Your task to perform on an android device: move a message to another label in the gmail app Image 0: 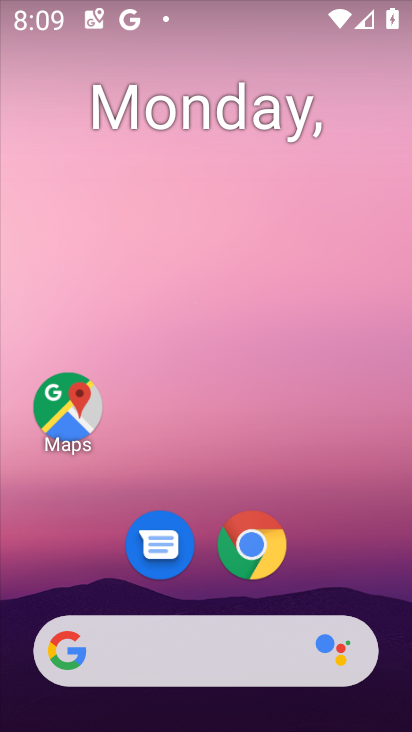
Step 0: drag from (166, 646) to (350, 172)
Your task to perform on an android device: move a message to another label in the gmail app Image 1: 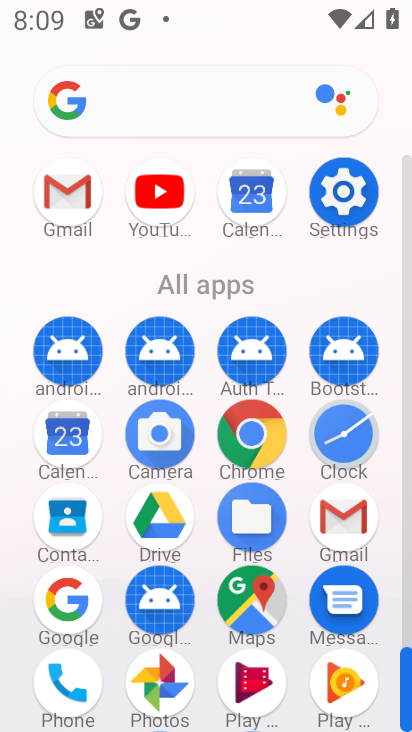
Step 1: click (68, 209)
Your task to perform on an android device: move a message to another label in the gmail app Image 2: 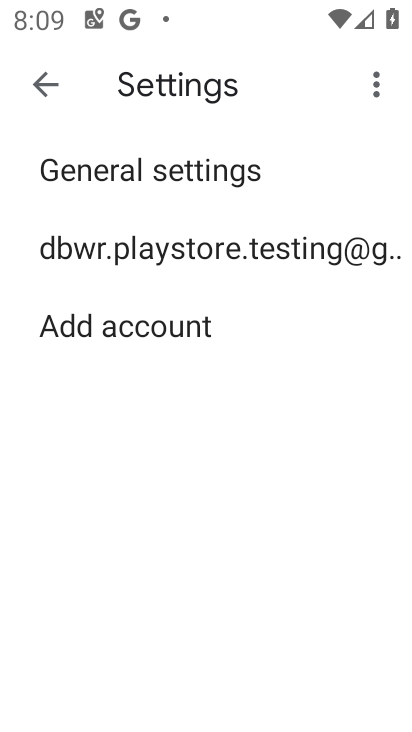
Step 2: click (54, 85)
Your task to perform on an android device: move a message to another label in the gmail app Image 3: 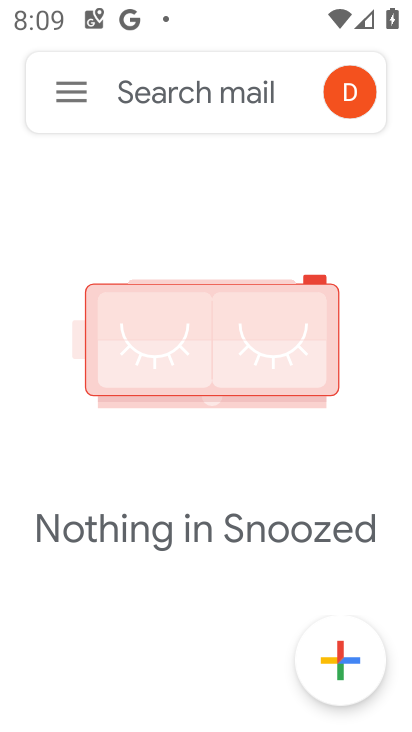
Step 3: click (79, 97)
Your task to perform on an android device: move a message to another label in the gmail app Image 4: 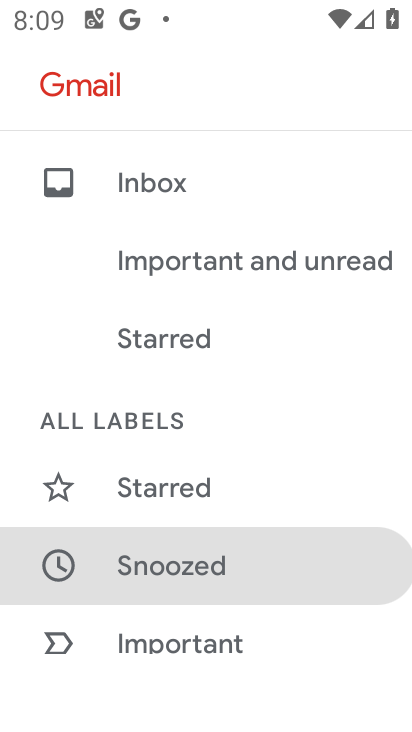
Step 4: drag from (299, 658) to (384, 139)
Your task to perform on an android device: move a message to another label in the gmail app Image 5: 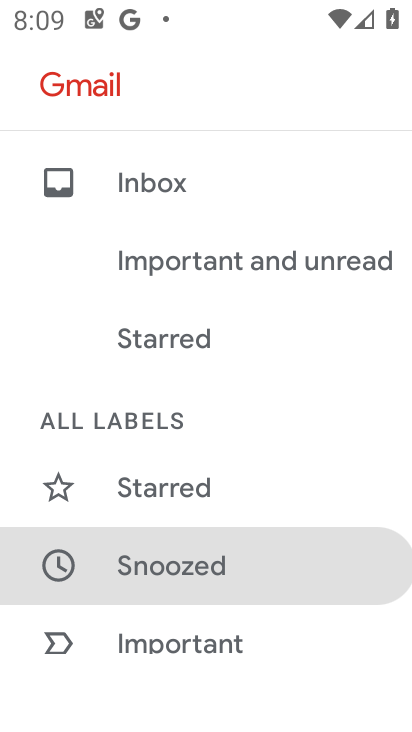
Step 5: drag from (257, 494) to (316, 139)
Your task to perform on an android device: move a message to another label in the gmail app Image 6: 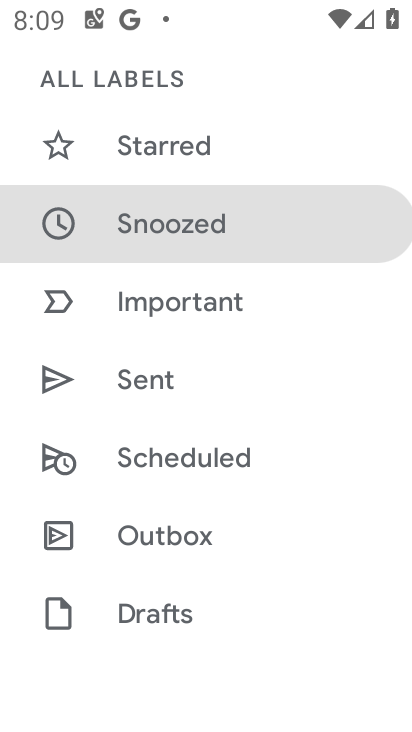
Step 6: drag from (268, 578) to (364, 130)
Your task to perform on an android device: move a message to another label in the gmail app Image 7: 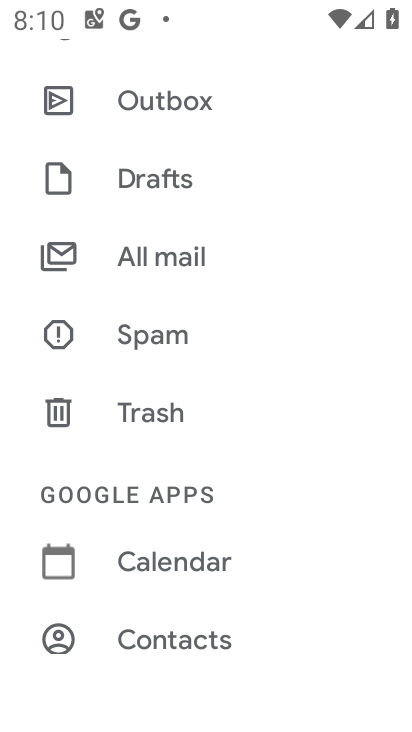
Step 7: click (200, 261)
Your task to perform on an android device: move a message to another label in the gmail app Image 8: 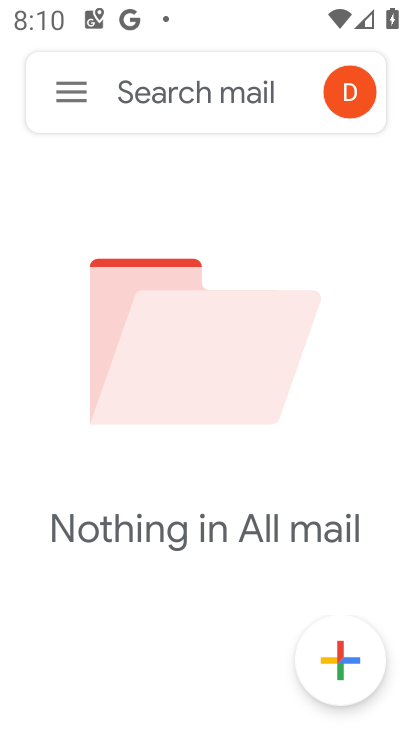
Step 8: task complete